Your task to perform on an android device: What's the weather going to be this weekend? Image 0: 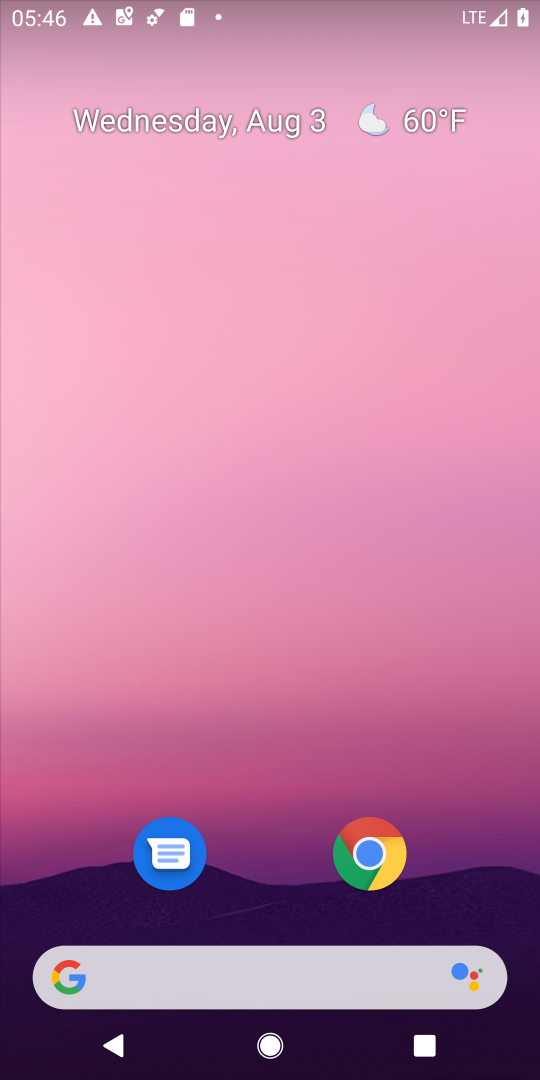
Step 0: drag from (251, 932) to (290, 240)
Your task to perform on an android device: What's the weather going to be this weekend? Image 1: 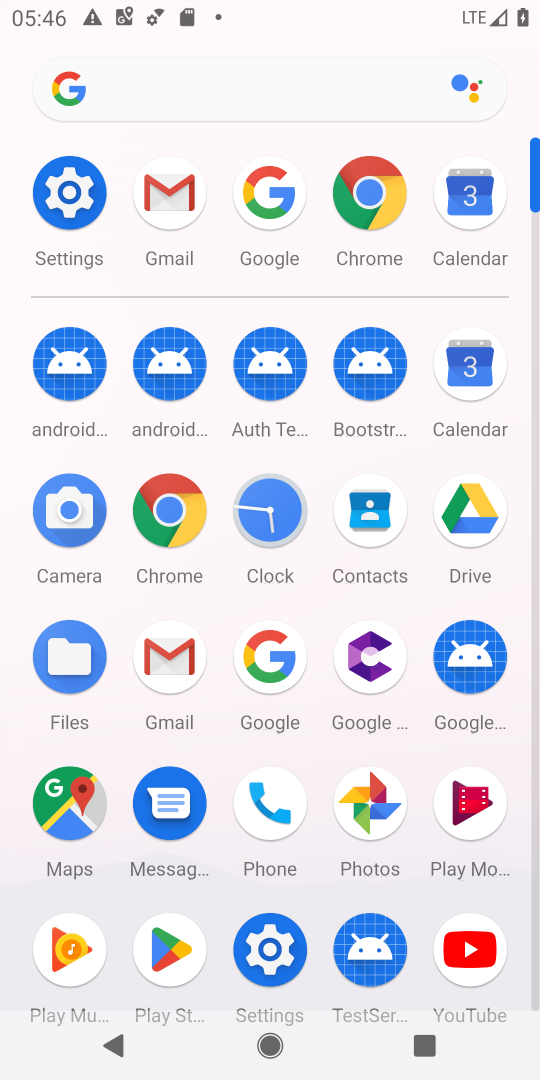
Step 1: click (265, 652)
Your task to perform on an android device: What's the weather going to be this weekend? Image 2: 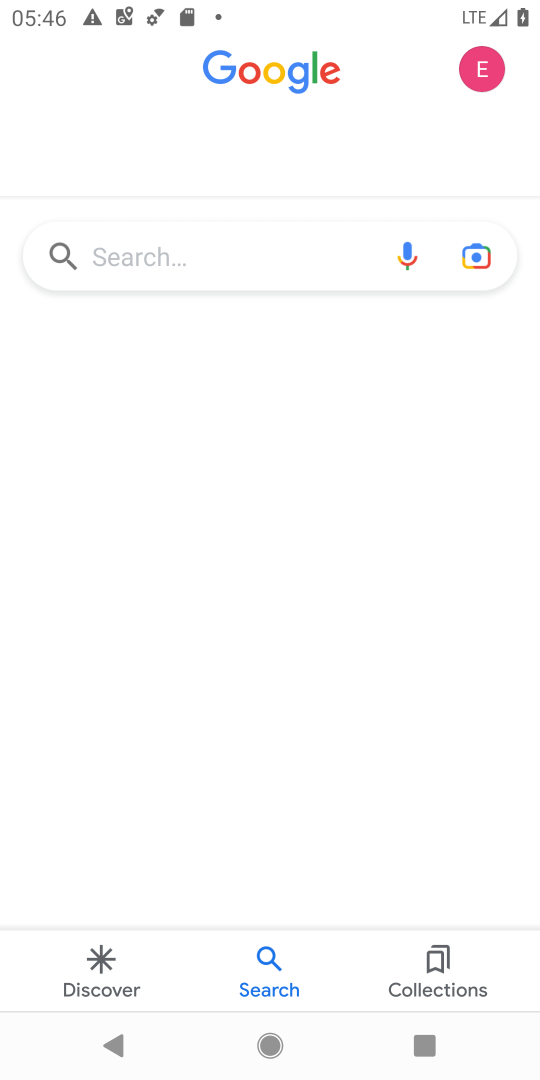
Step 2: click (205, 240)
Your task to perform on an android device: What's the weather going to be this weekend? Image 3: 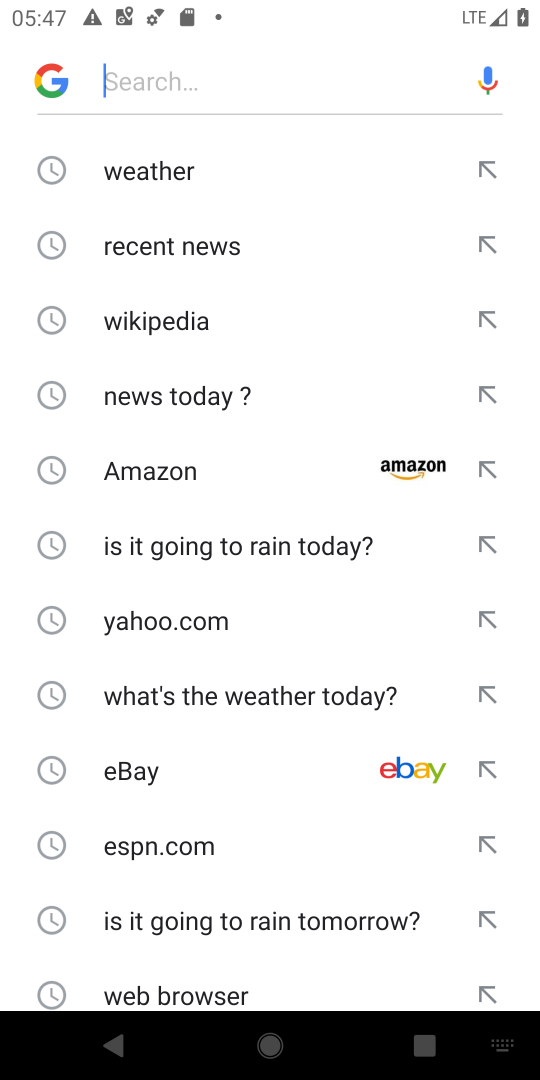
Step 3: click (137, 172)
Your task to perform on an android device: What's the weather going to be this weekend? Image 4: 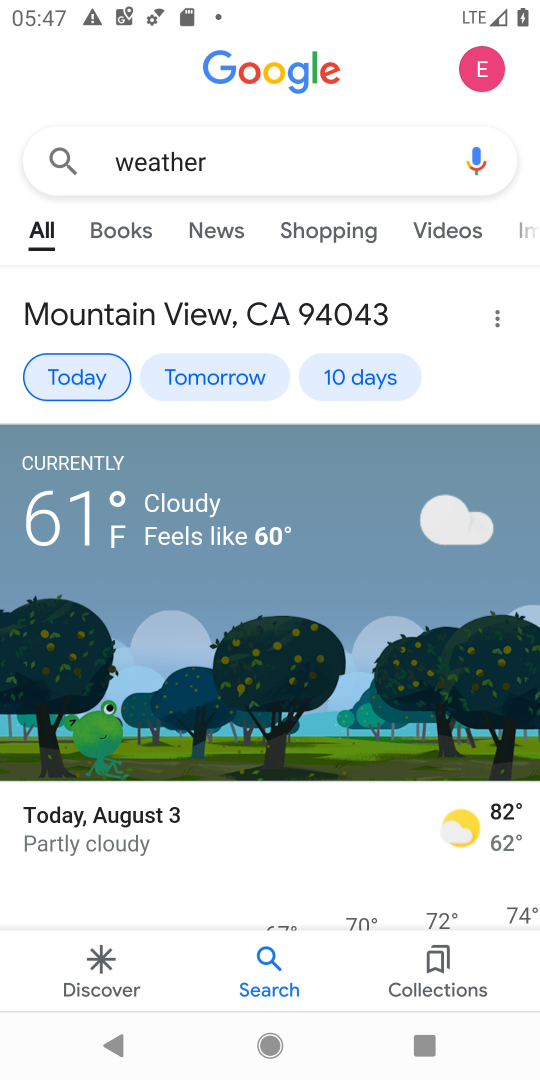
Step 4: click (340, 372)
Your task to perform on an android device: What's the weather going to be this weekend? Image 5: 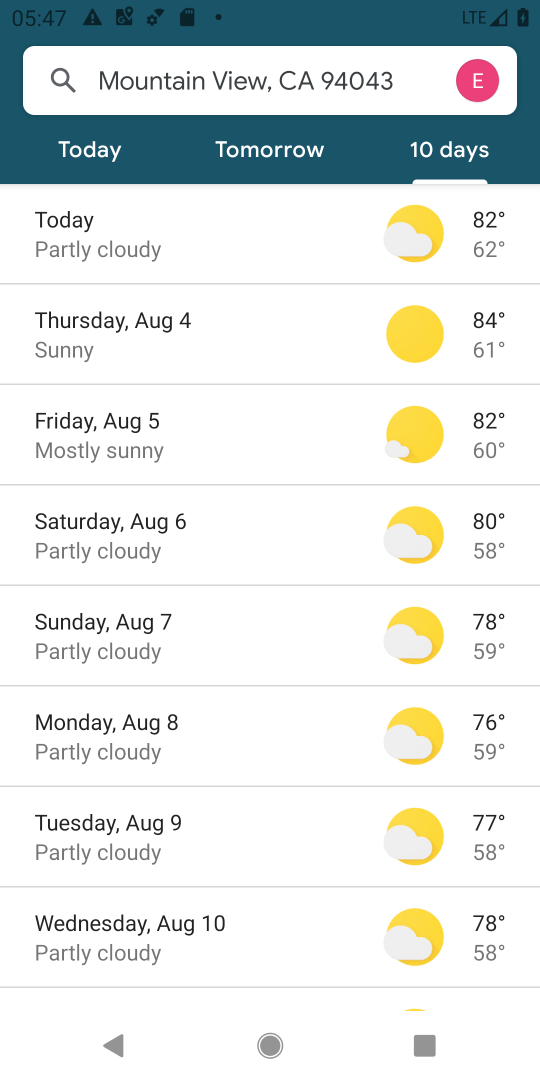
Step 5: click (111, 543)
Your task to perform on an android device: What's the weather going to be this weekend? Image 6: 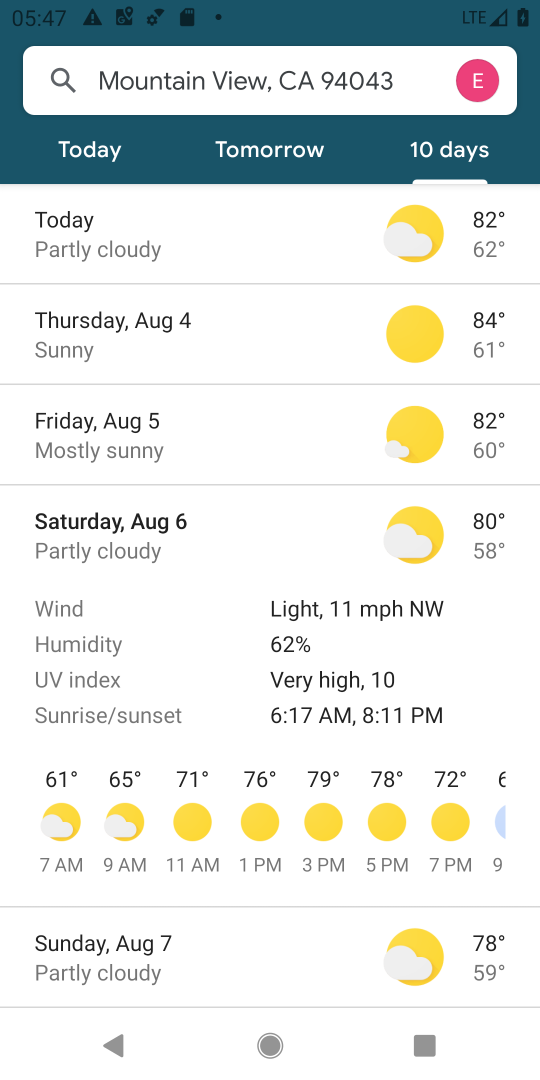
Step 6: task complete